Your task to perform on an android device: see creations saved in the google photos Image 0: 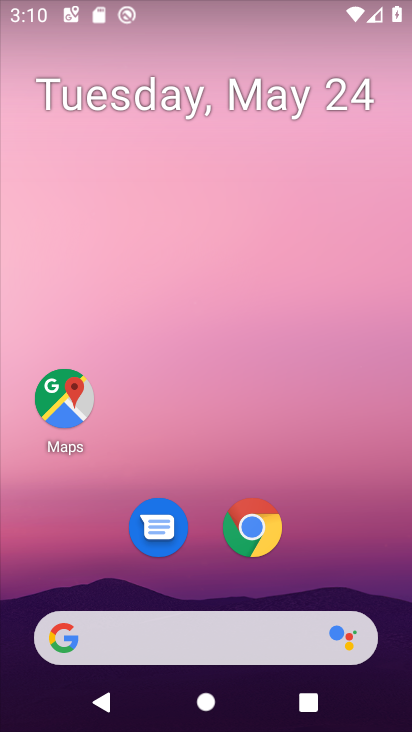
Step 0: drag from (340, 580) to (357, 30)
Your task to perform on an android device: see creations saved in the google photos Image 1: 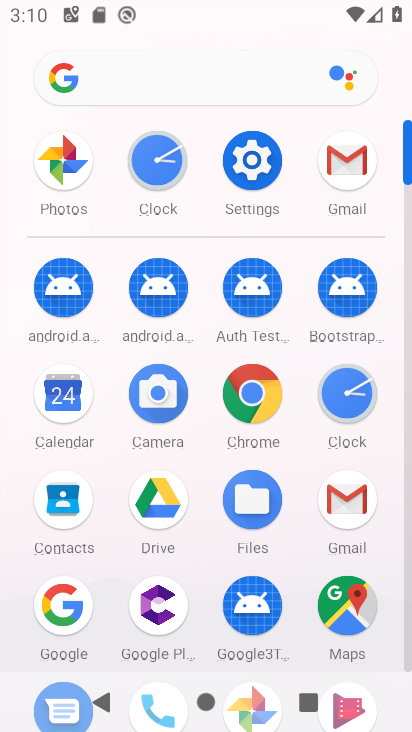
Step 1: click (58, 159)
Your task to perform on an android device: see creations saved in the google photos Image 2: 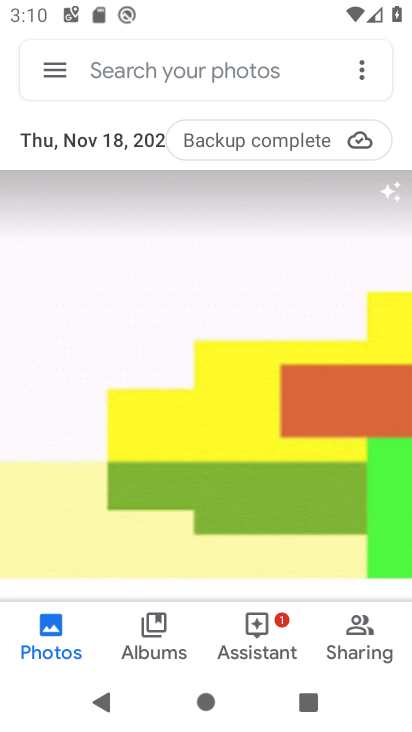
Step 2: click (120, 72)
Your task to perform on an android device: see creations saved in the google photos Image 3: 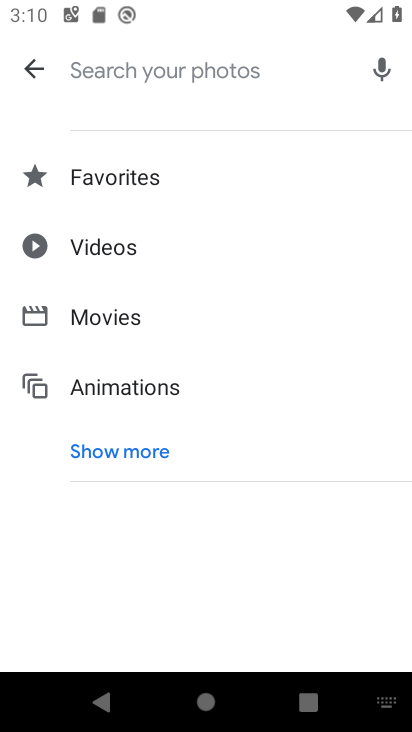
Step 3: click (98, 449)
Your task to perform on an android device: see creations saved in the google photos Image 4: 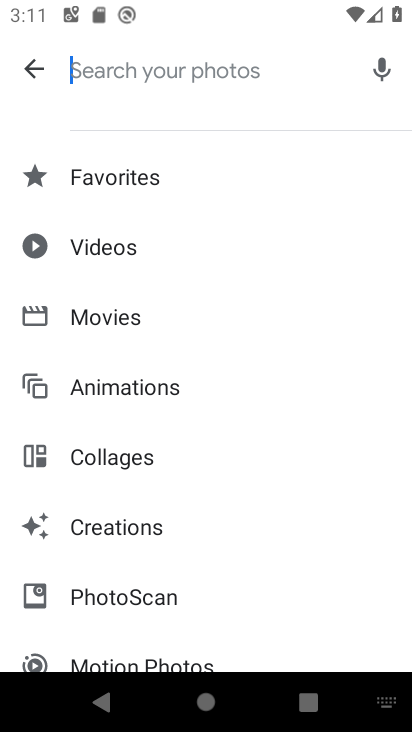
Step 4: click (99, 533)
Your task to perform on an android device: see creations saved in the google photos Image 5: 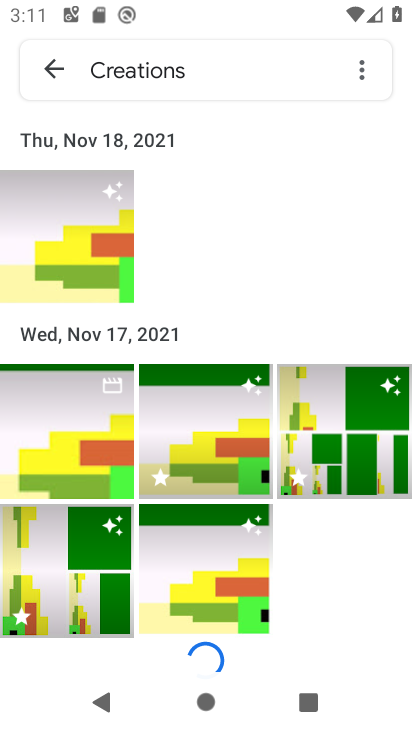
Step 5: task complete